Your task to perform on an android device: find snoozed emails in the gmail app Image 0: 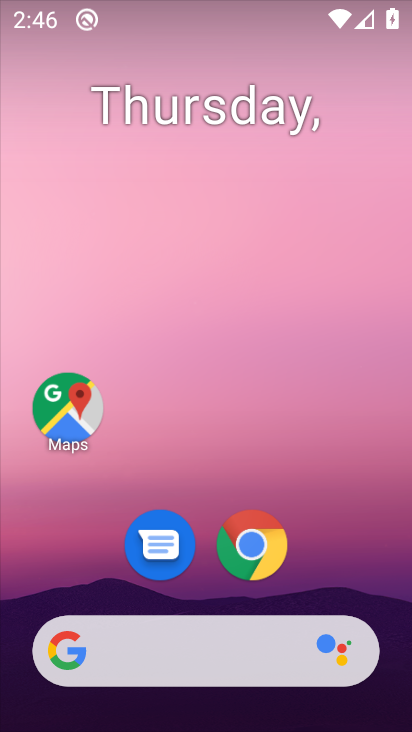
Step 0: drag from (272, 605) to (274, 160)
Your task to perform on an android device: find snoozed emails in the gmail app Image 1: 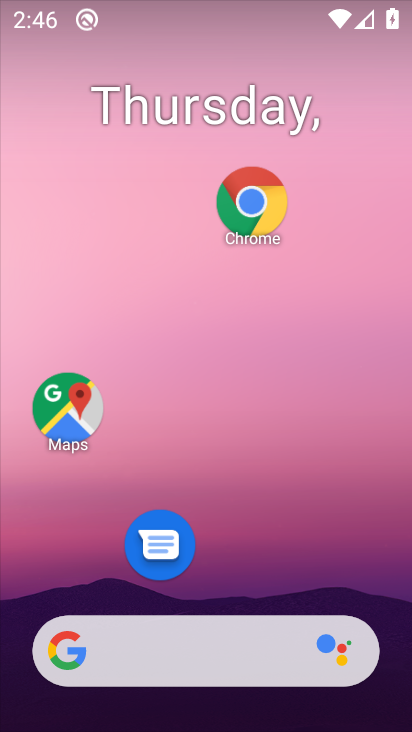
Step 1: drag from (249, 620) to (302, 59)
Your task to perform on an android device: find snoozed emails in the gmail app Image 2: 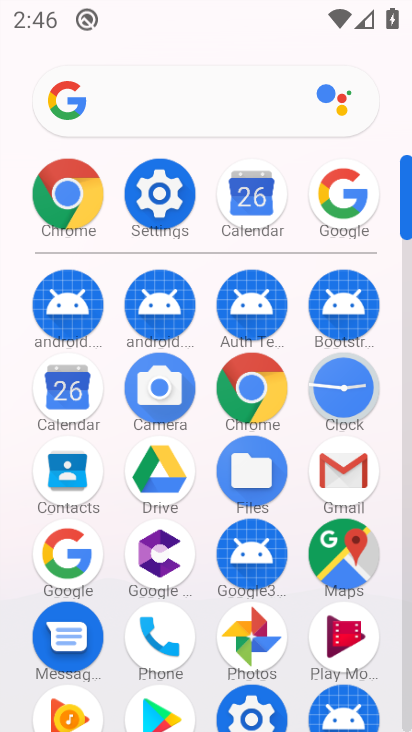
Step 2: click (326, 478)
Your task to perform on an android device: find snoozed emails in the gmail app Image 3: 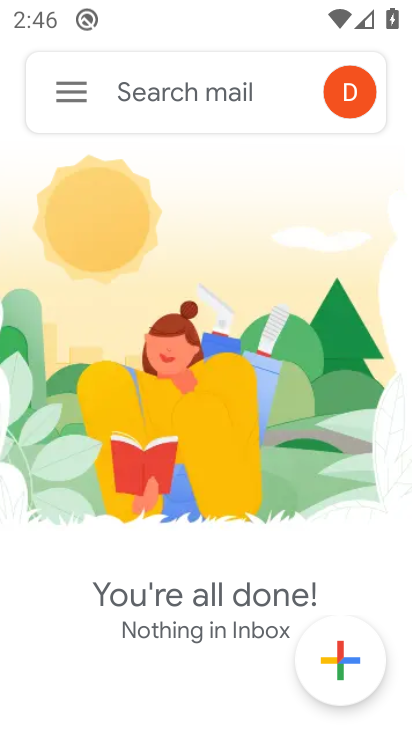
Step 3: click (66, 91)
Your task to perform on an android device: find snoozed emails in the gmail app Image 4: 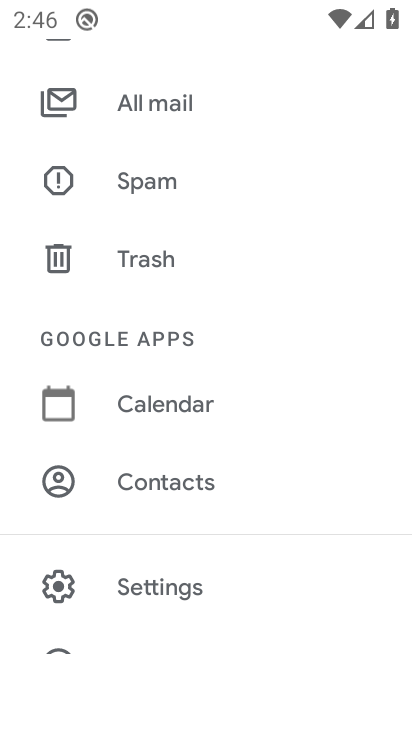
Step 4: drag from (175, 88) to (196, 515)
Your task to perform on an android device: find snoozed emails in the gmail app Image 5: 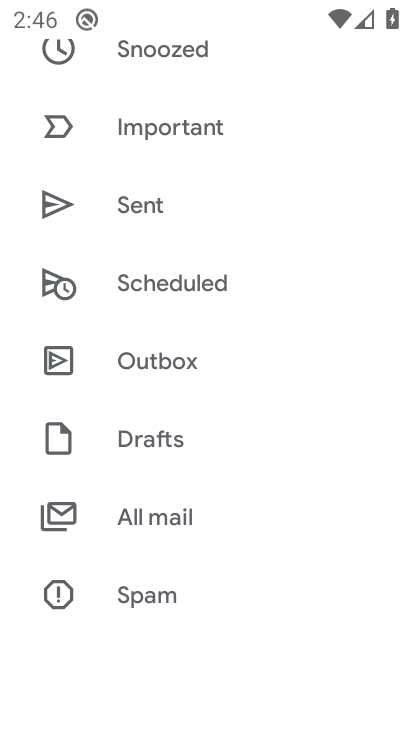
Step 5: click (185, 58)
Your task to perform on an android device: find snoozed emails in the gmail app Image 6: 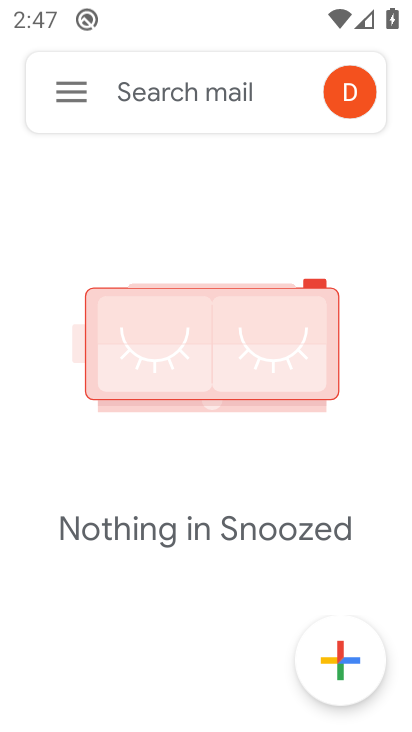
Step 6: task complete